Your task to perform on an android device: Search for Mexican restaurants on Maps Image 0: 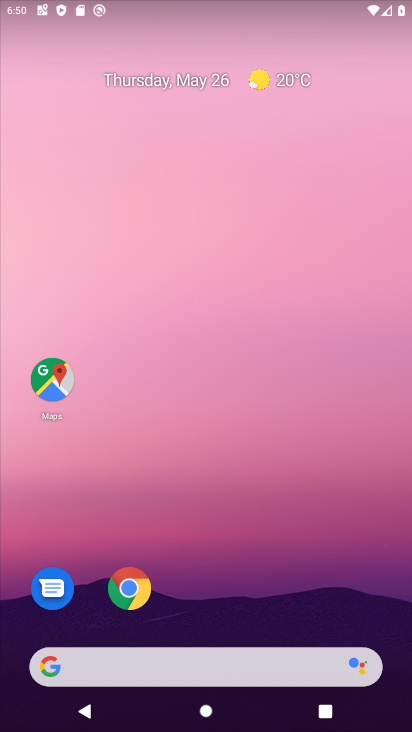
Step 0: drag from (364, 613) to (268, 75)
Your task to perform on an android device: Search for Mexican restaurants on Maps Image 1: 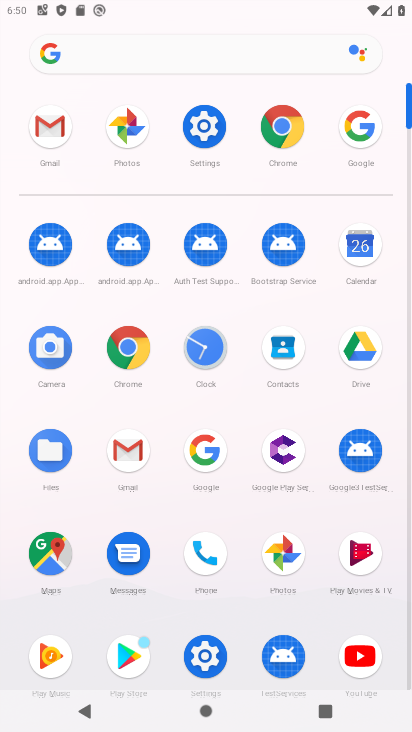
Step 1: click (55, 554)
Your task to perform on an android device: Search for Mexican restaurants on Maps Image 2: 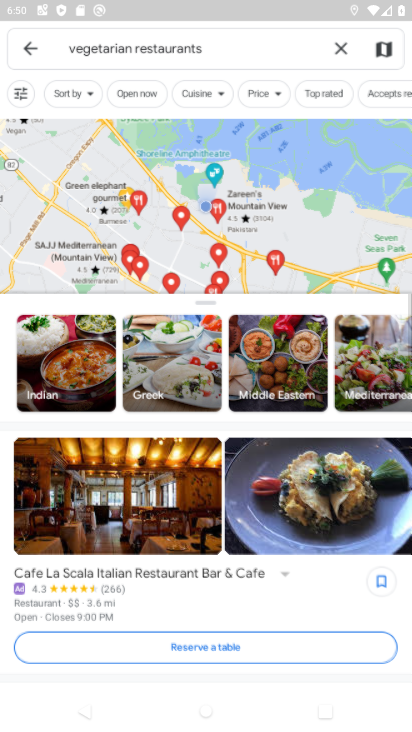
Step 2: click (334, 50)
Your task to perform on an android device: Search for Mexican restaurants on Maps Image 3: 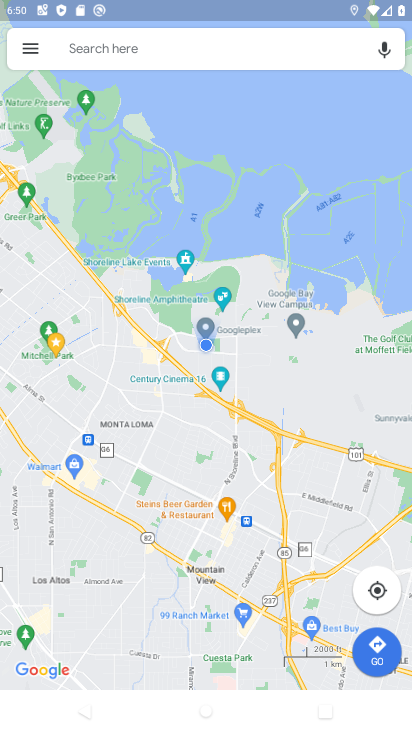
Step 3: click (179, 44)
Your task to perform on an android device: Search for Mexican restaurants on Maps Image 4: 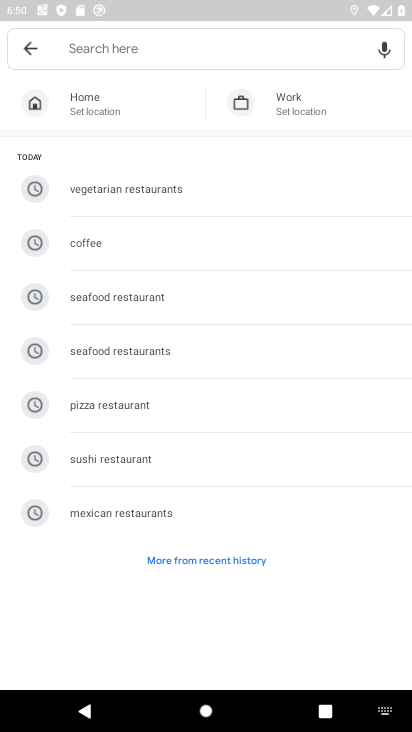
Step 4: click (105, 499)
Your task to perform on an android device: Search for Mexican restaurants on Maps Image 5: 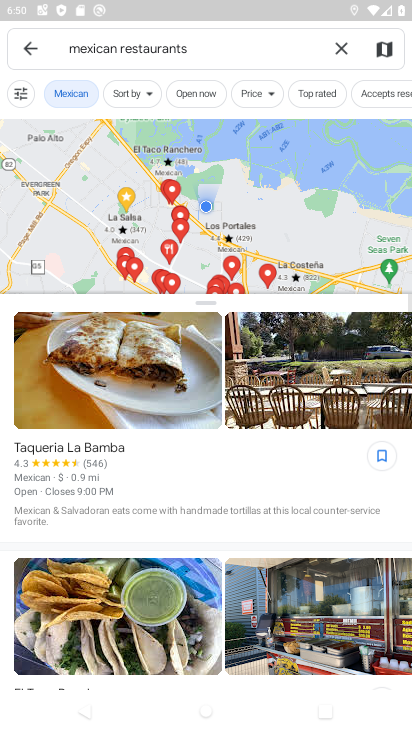
Step 5: task complete